Your task to perform on an android device: turn on the 24-hour format for clock Image 0: 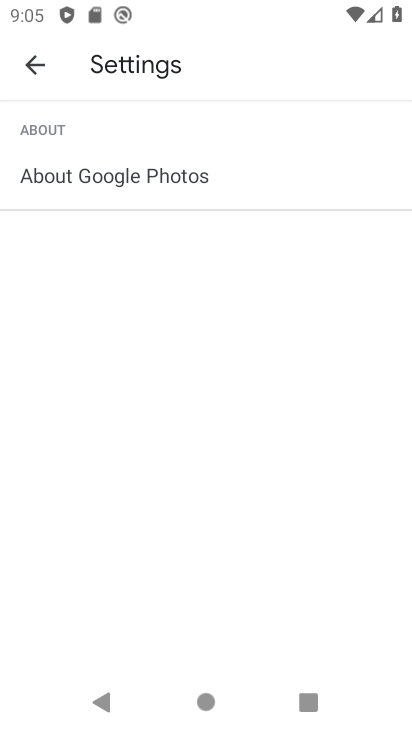
Step 0: press home button
Your task to perform on an android device: turn on the 24-hour format for clock Image 1: 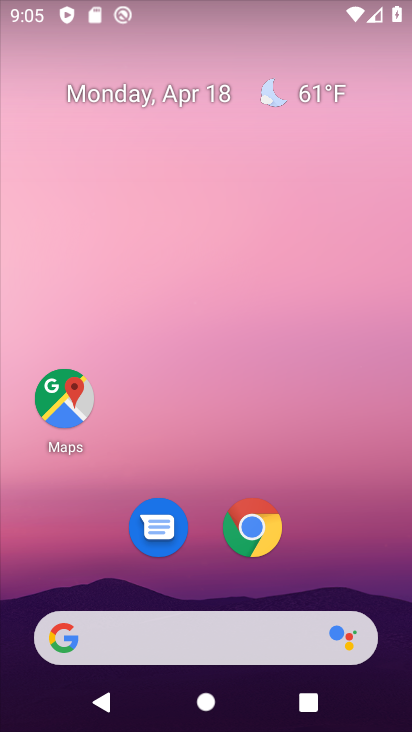
Step 1: drag from (207, 437) to (281, 37)
Your task to perform on an android device: turn on the 24-hour format for clock Image 2: 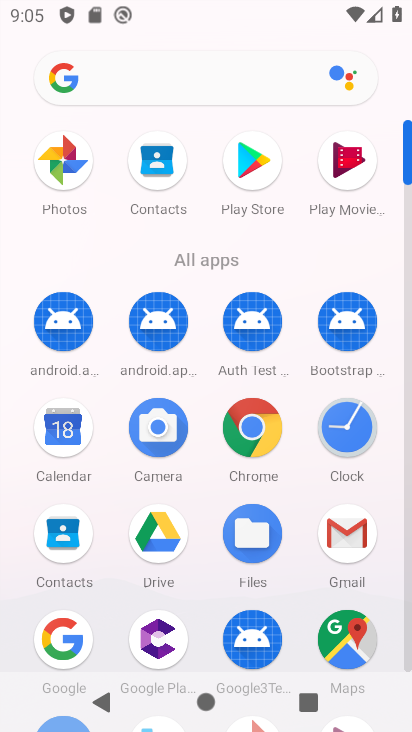
Step 2: click (347, 440)
Your task to perform on an android device: turn on the 24-hour format for clock Image 3: 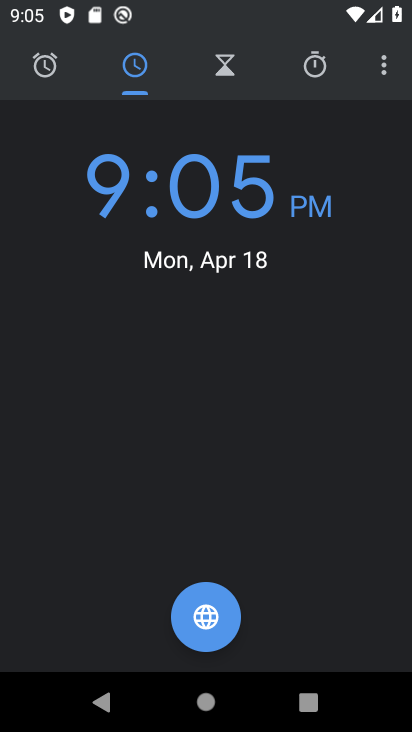
Step 3: click (383, 64)
Your task to perform on an android device: turn on the 24-hour format for clock Image 4: 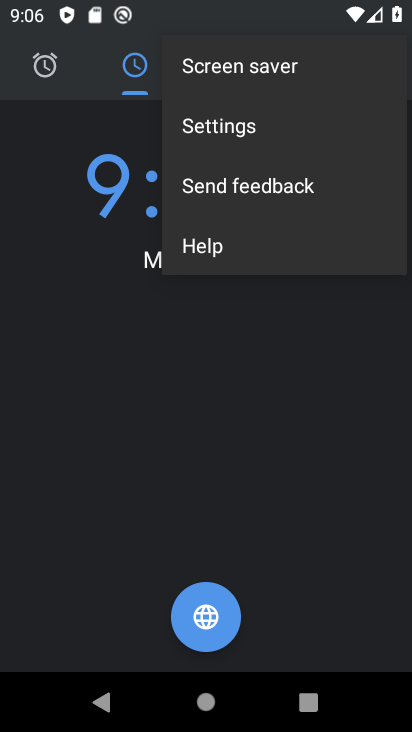
Step 4: click (252, 123)
Your task to perform on an android device: turn on the 24-hour format for clock Image 5: 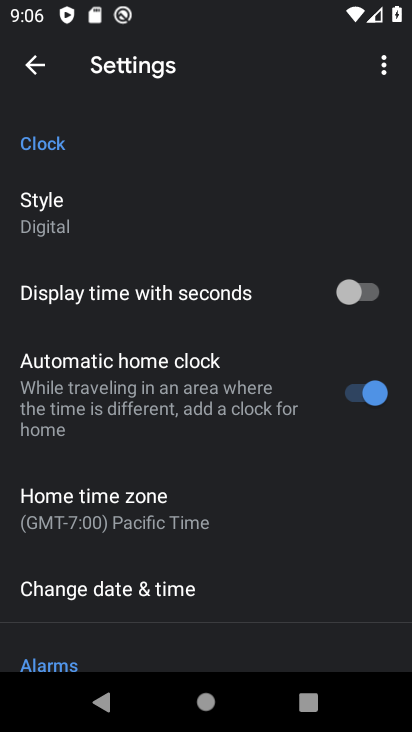
Step 5: click (95, 599)
Your task to perform on an android device: turn on the 24-hour format for clock Image 6: 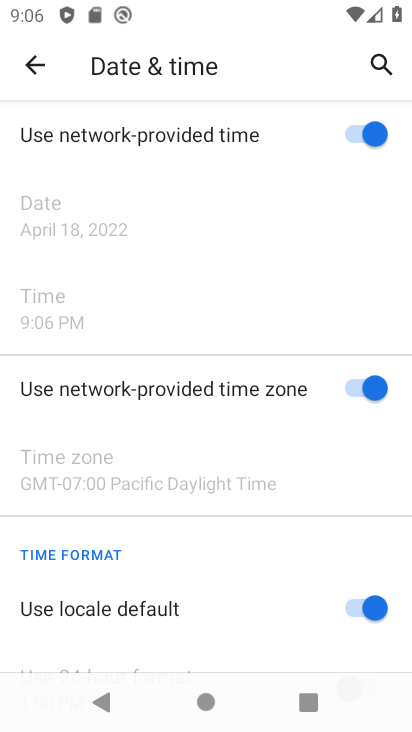
Step 6: drag from (215, 618) to (347, 24)
Your task to perform on an android device: turn on the 24-hour format for clock Image 7: 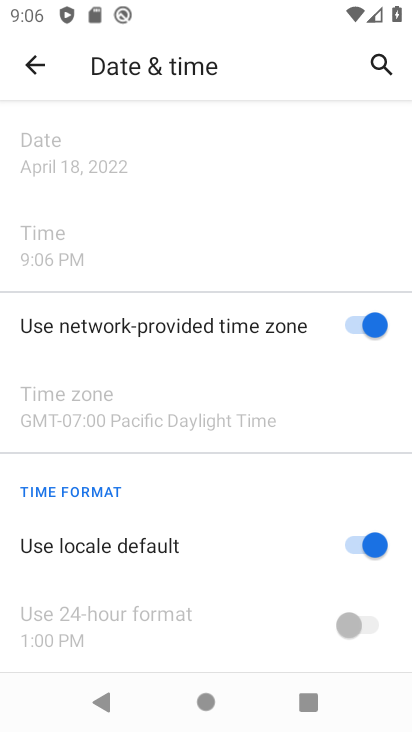
Step 7: click (367, 542)
Your task to perform on an android device: turn on the 24-hour format for clock Image 8: 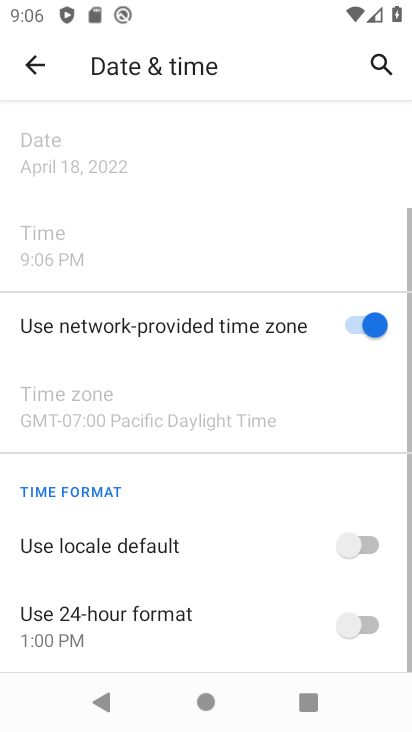
Step 8: click (373, 624)
Your task to perform on an android device: turn on the 24-hour format for clock Image 9: 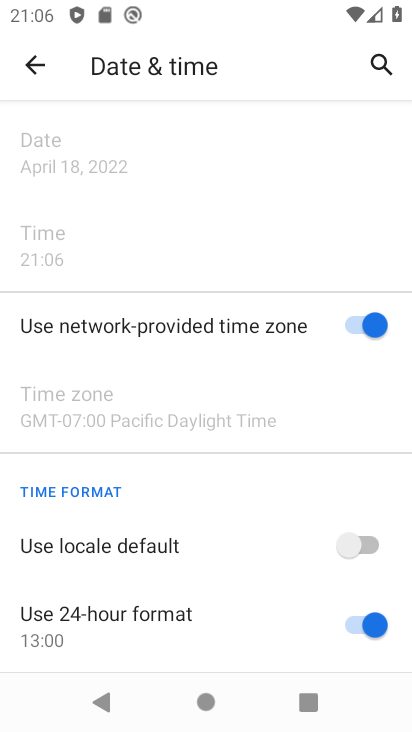
Step 9: task complete